Your task to perform on an android device: What's the weather going to be this weekend? Image 0: 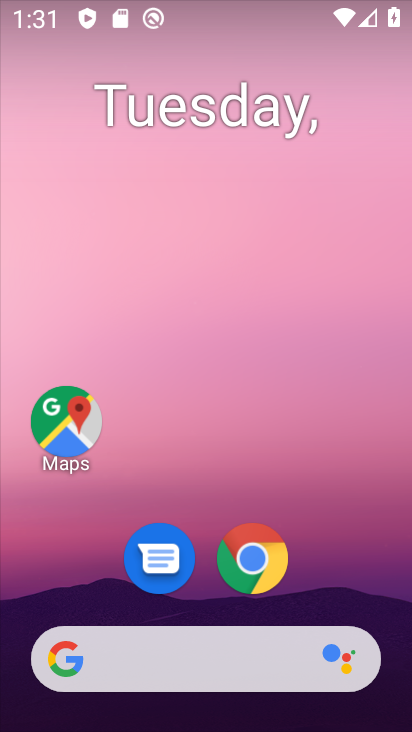
Step 0: drag from (172, 607) to (327, 84)
Your task to perform on an android device: What's the weather going to be this weekend? Image 1: 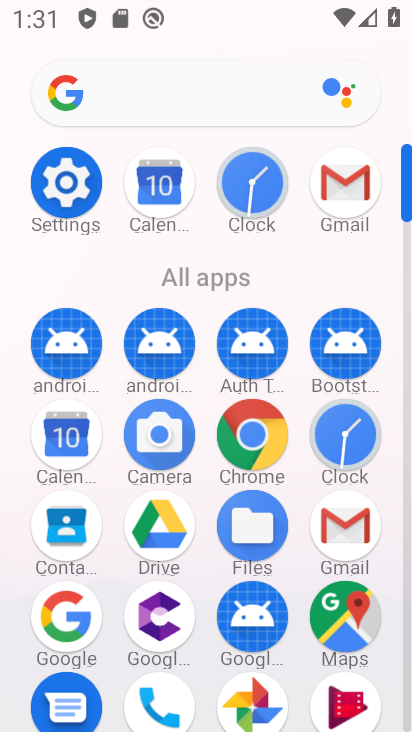
Step 1: click (132, 87)
Your task to perform on an android device: What's the weather going to be this weekend? Image 2: 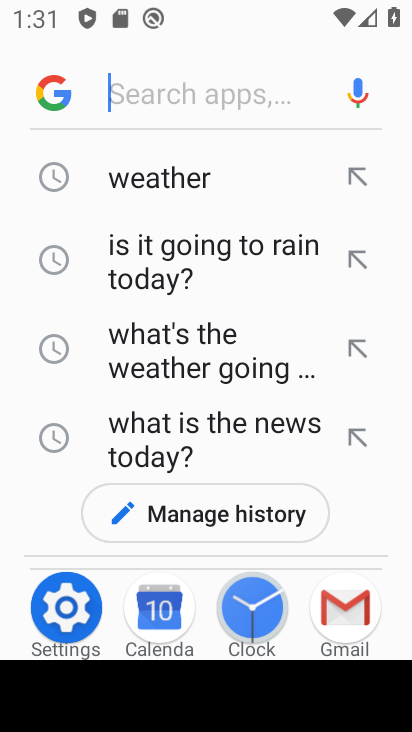
Step 2: click (134, 170)
Your task to perform on an android device: What's the weather going to be this weekend? Image 3: 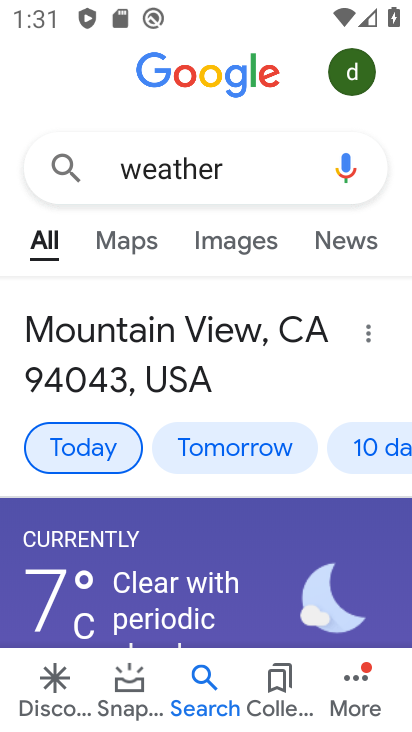
Step 3: click (390, 437)
Your task to perform on an android device: What's the weather going to be this weekend? Image 4: 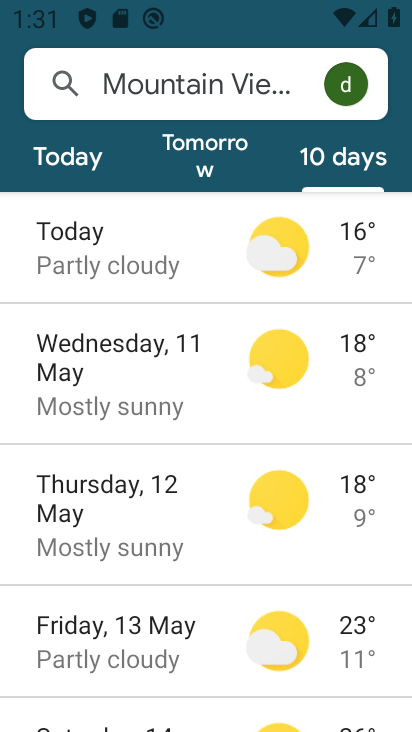
Step 4: task complete